Your task to perform on an android device: open the mobile data screen to see how much data has been used Image 0: 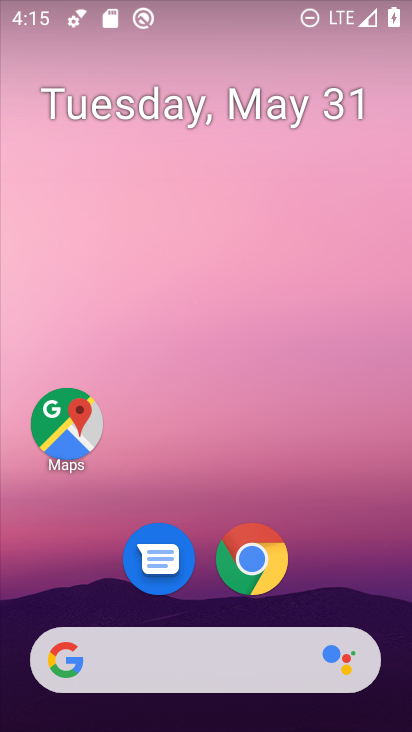
Step 0: drag from (252, 718) to (253, 94)
Your task to perform on an android device: open the mobile data screen to see how much data has been used Image 1: 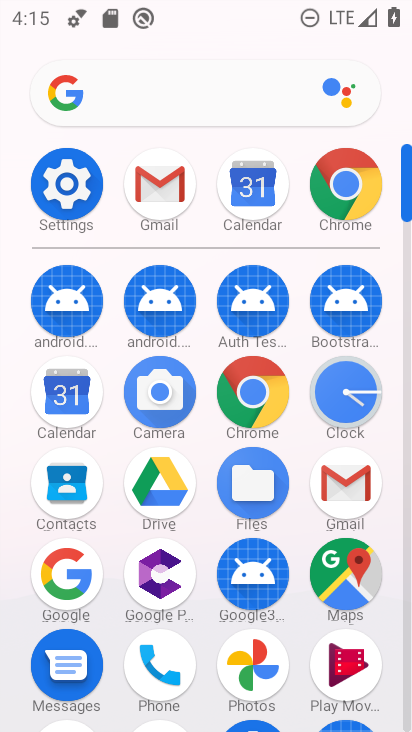
Step 1: click (78, 185)
Your task to perform on an android device: open the mobile data screen to see how much data has been used Image 2: 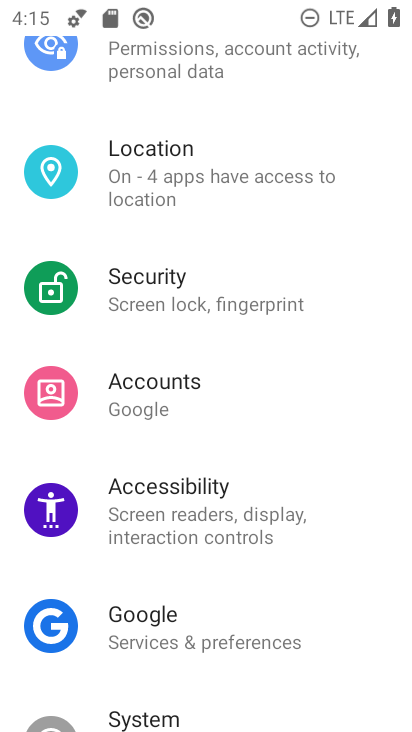
Step 2: drag from (260, 187) to (268, 535)
Your task to perform on an android device: open the mobile data screen to see how much data has been used Image 3: 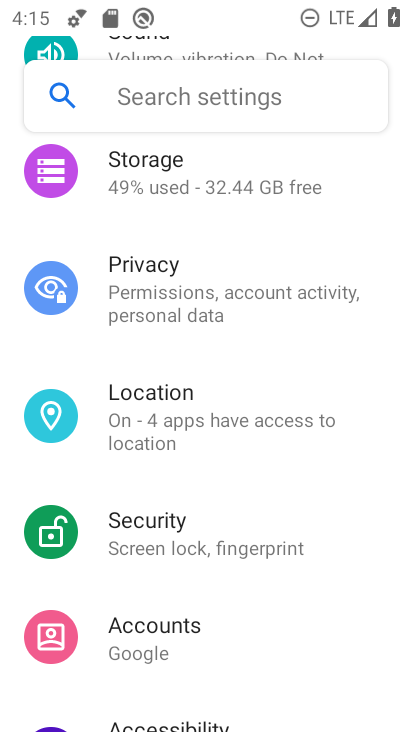
Step 3: drag from (269, 174) to (280, 603)
Your task to perform on an android device: open the mobile data screen to see how much data has been used Image 4: 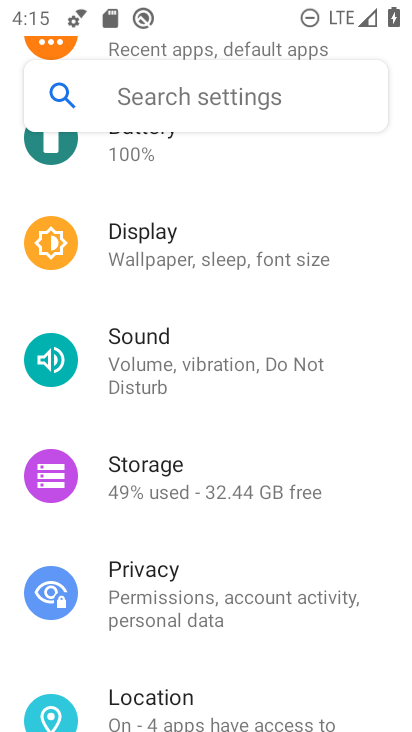
Step 4: drag from (276, 174) to (288, 671)
Your task to perform on an android device: open the mobile data screen to see how much data has been used Image 5: 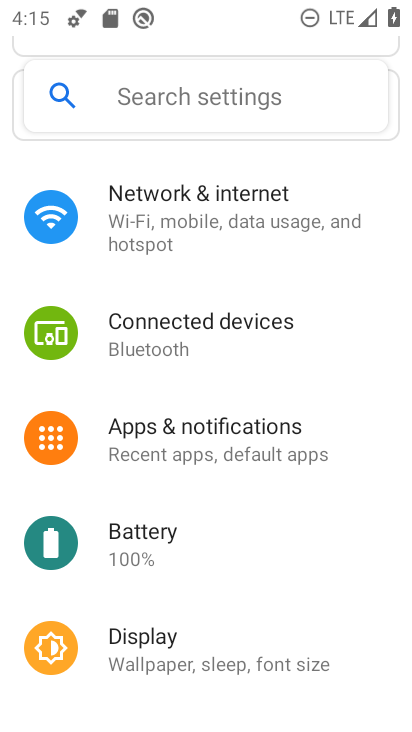
Step 5: click (157, 220)
Your task to perform on an android device: open the mobile data screen to see how much data has been used Image 6: 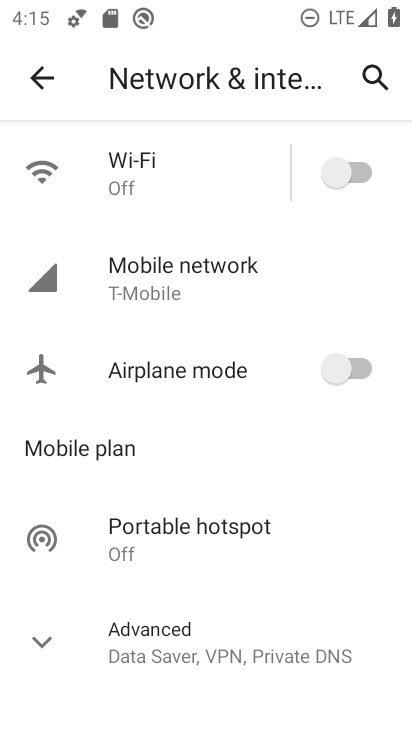
Step 6: click (153, 275)
Your task to perform on an android device: open the mobile data screen to see how much data has been used Image 7: 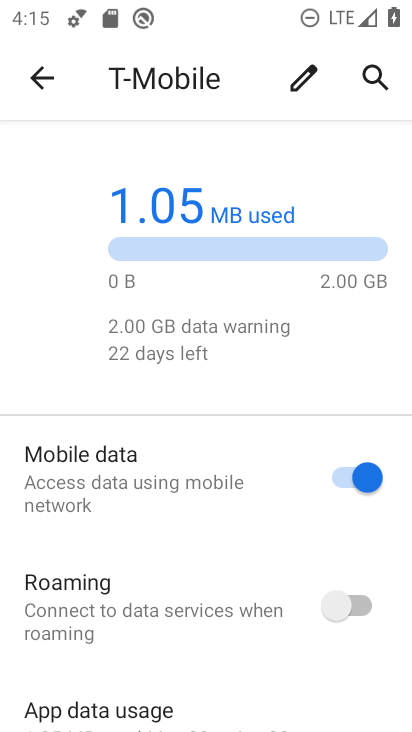
Step 7: drag from (161, 705) to (168, 579)
Your task to perform on an android device: open the mobile data screen to see how much data has been used Image 8: 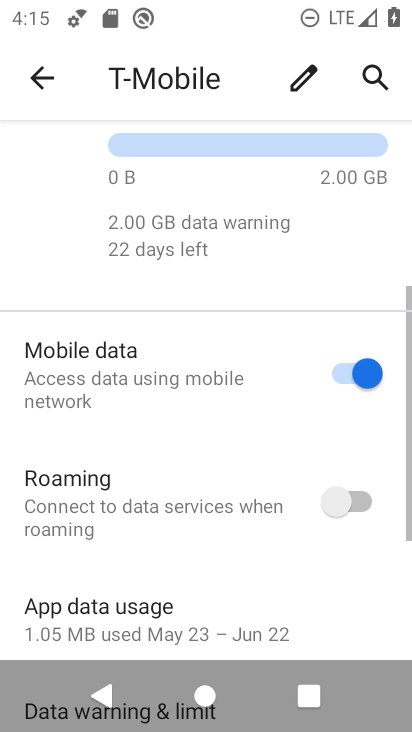
Step 8: click (161, 269)
Your task to perform on an android device: open the mobile data screen to see how much data has been used Image 9: 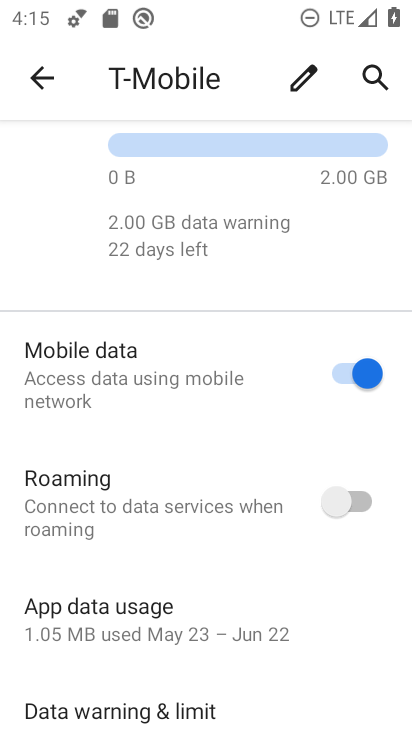
Step 9: click (109, 609)
Your task to perform on an android device: open the mobile data screen to see how much data has been used Image 10: 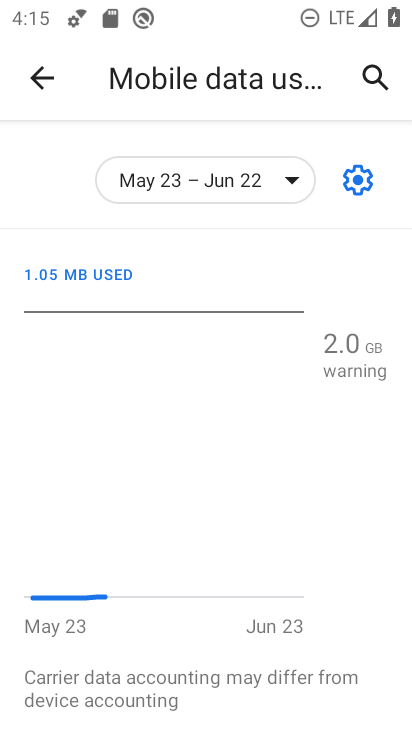
Step 10: task complete